Your task to perform on an android device: Open the map Image 0: 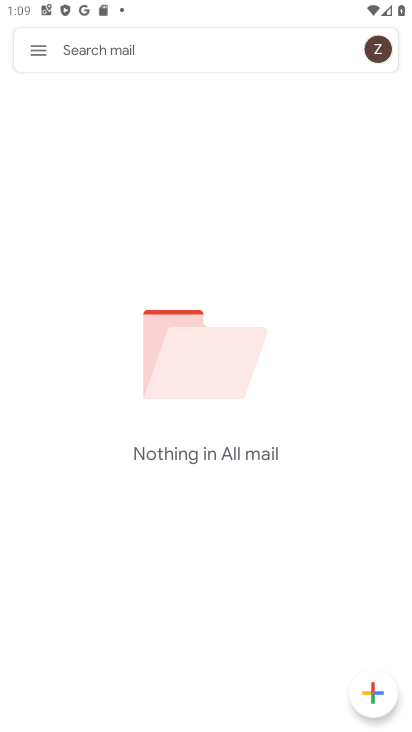
Step 0: press home button
Your task to perform on an android device: Open the map Image 1: 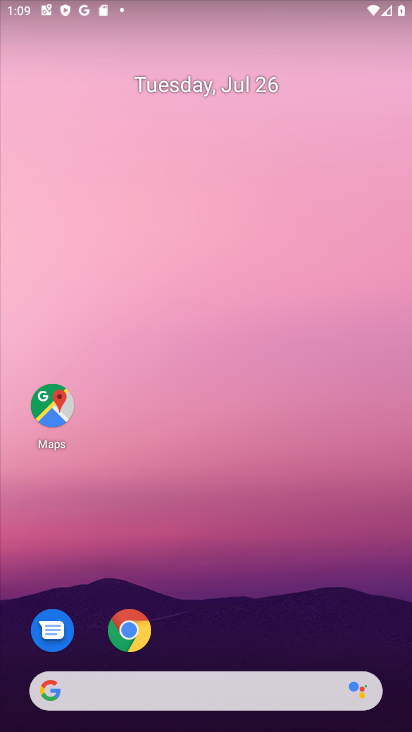
Step 1: drag from (278, 616) to (296, 0)
Your task to perform on an android device: Open the map Image 2: 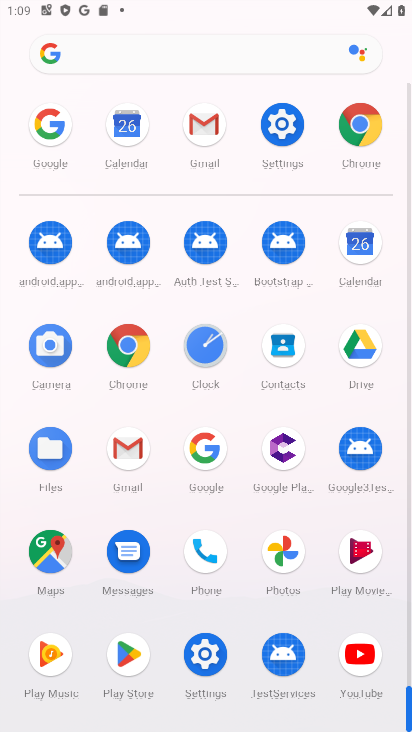
Step 2: click (51, 550)
Your task to perform on an android device: Open the map Image 3: 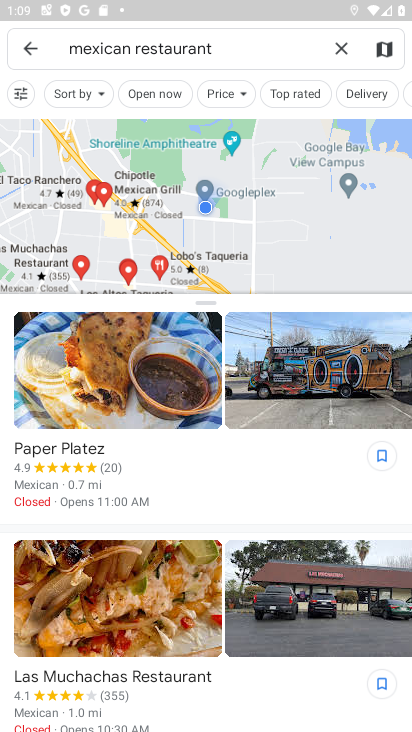
Step 3: task complete